Your task to perform on an android device: Clear all items from cart on ebay.com. Search for "razer naga" on ebay.com, select the first entry, add it to the cart, then select checkout. Image 0: 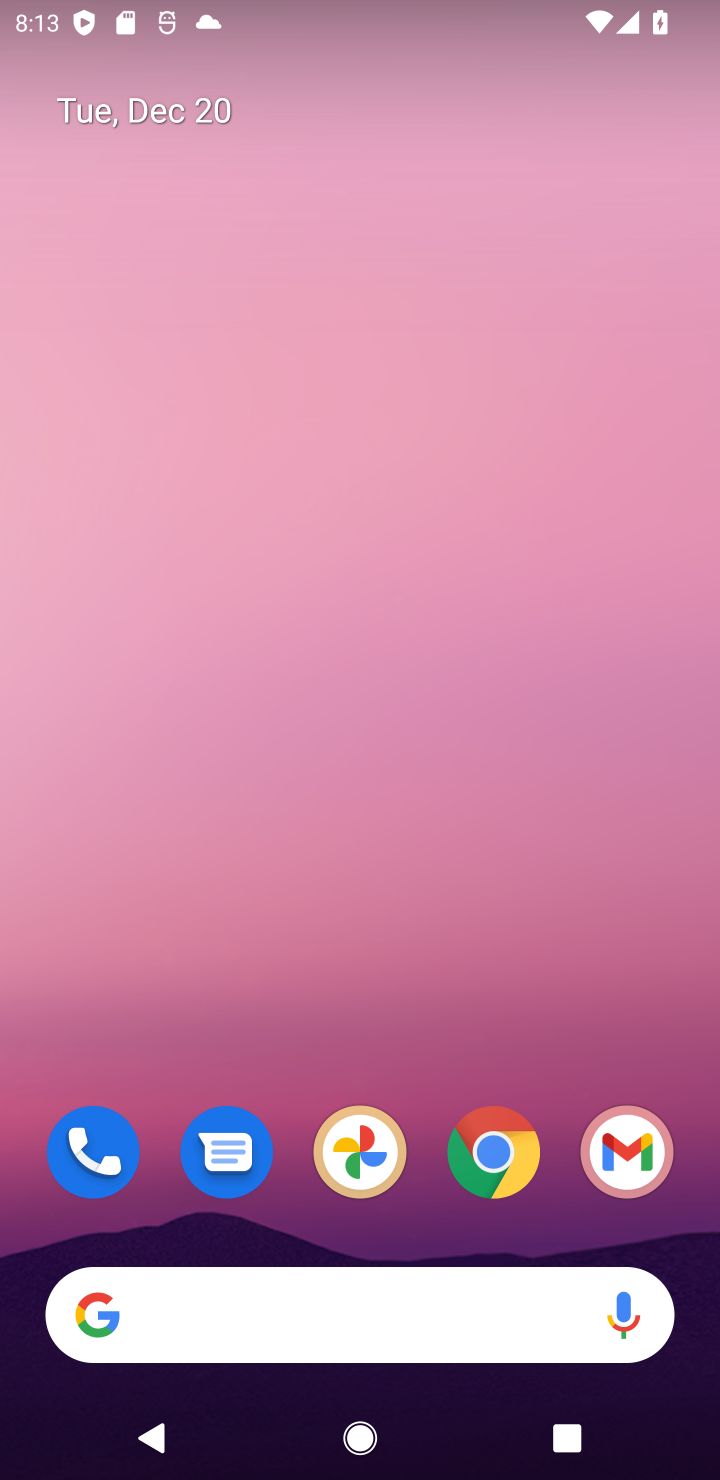
Step 0: click (481, 1149)
Your task to perform on an android device: Clear all items from cart on ebay.com. Search for "razer naga" on ebay.com, select the first entry, add it to the cart, then select checkout. Image 1: 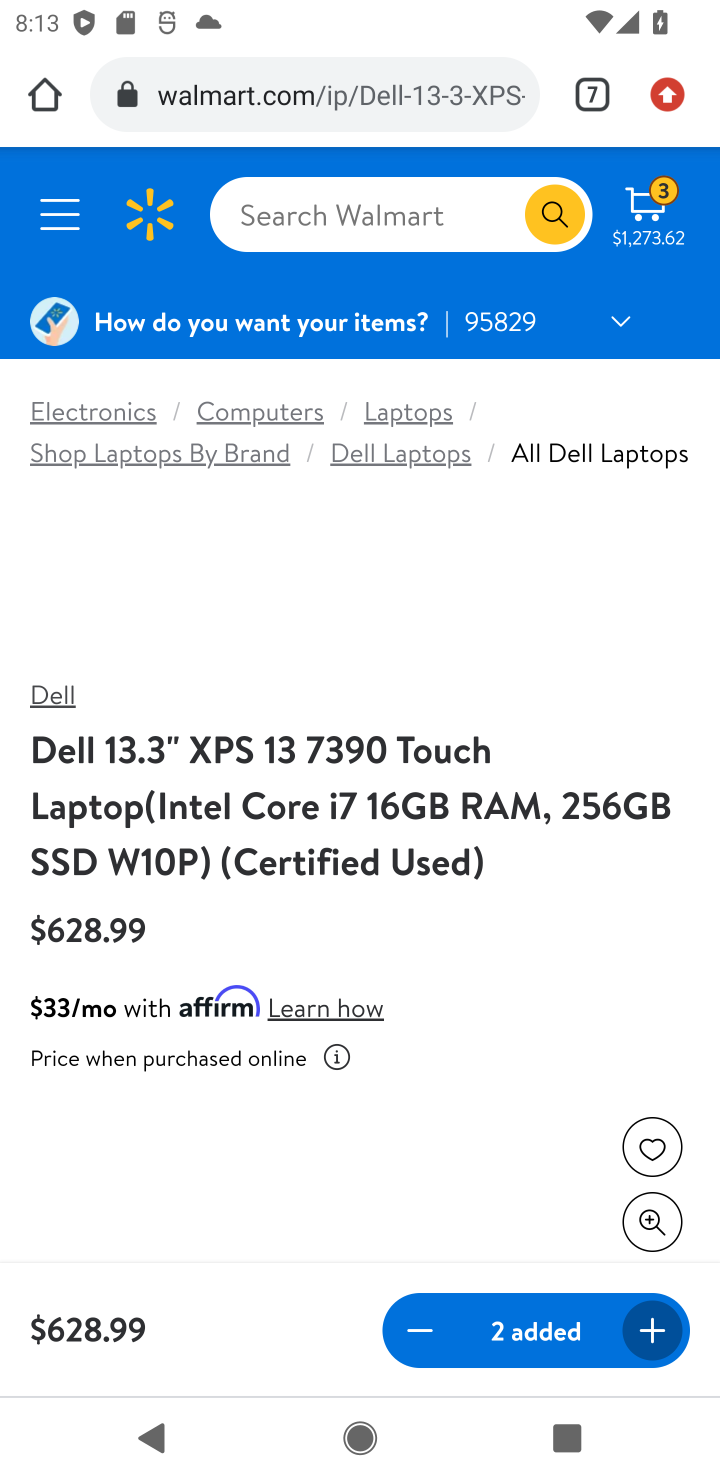
Step 1: click (592, 106)
Your task to perform on an android device: Clear all items from cart on ebay.com. Search for "razer naga" on ebay.com, select the first entry, add it to the cart, then select checkout. Image 2: 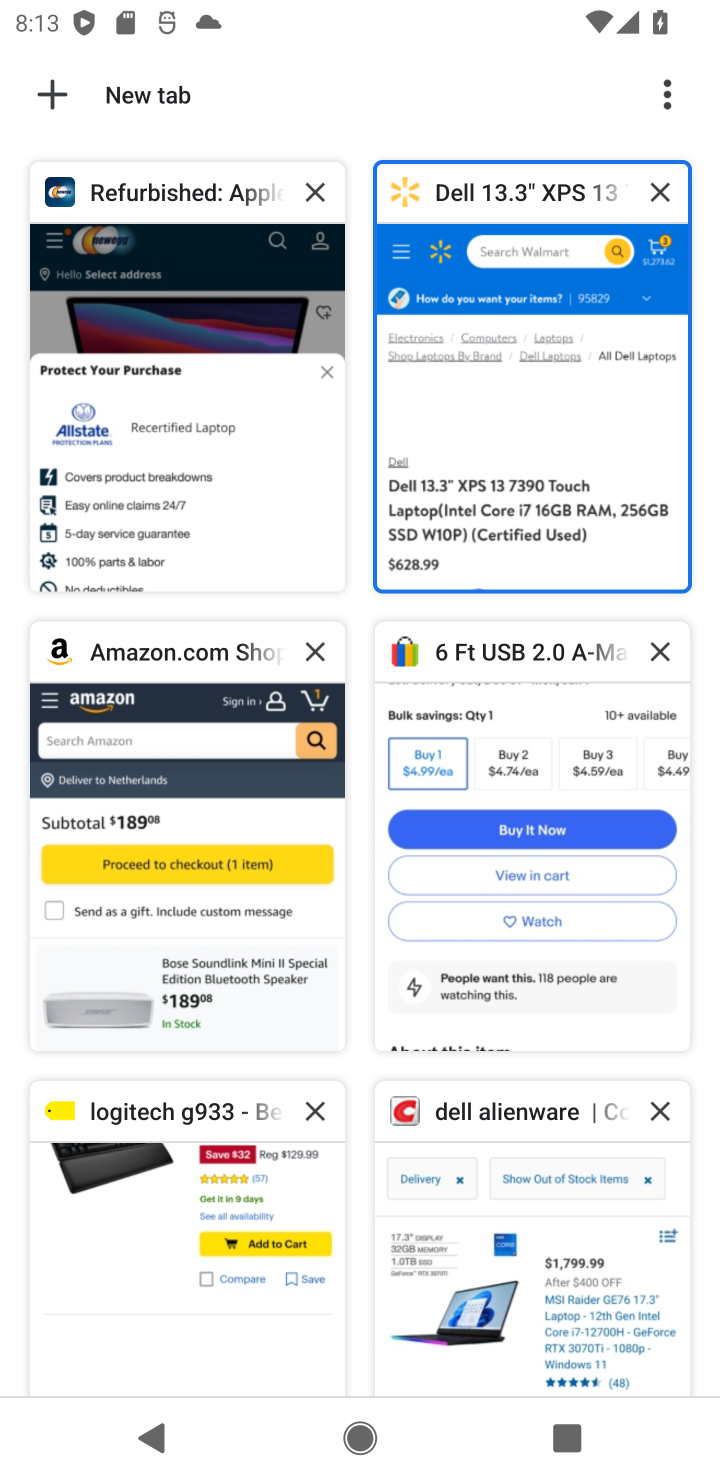
Step 2: click (476, 636)
Your task to perform on an android device: Clear all items from cart on ebay.com. Search for "razer naga" on ebay.com, select the first entry, add it to the cart, then select checkout. Image 3: 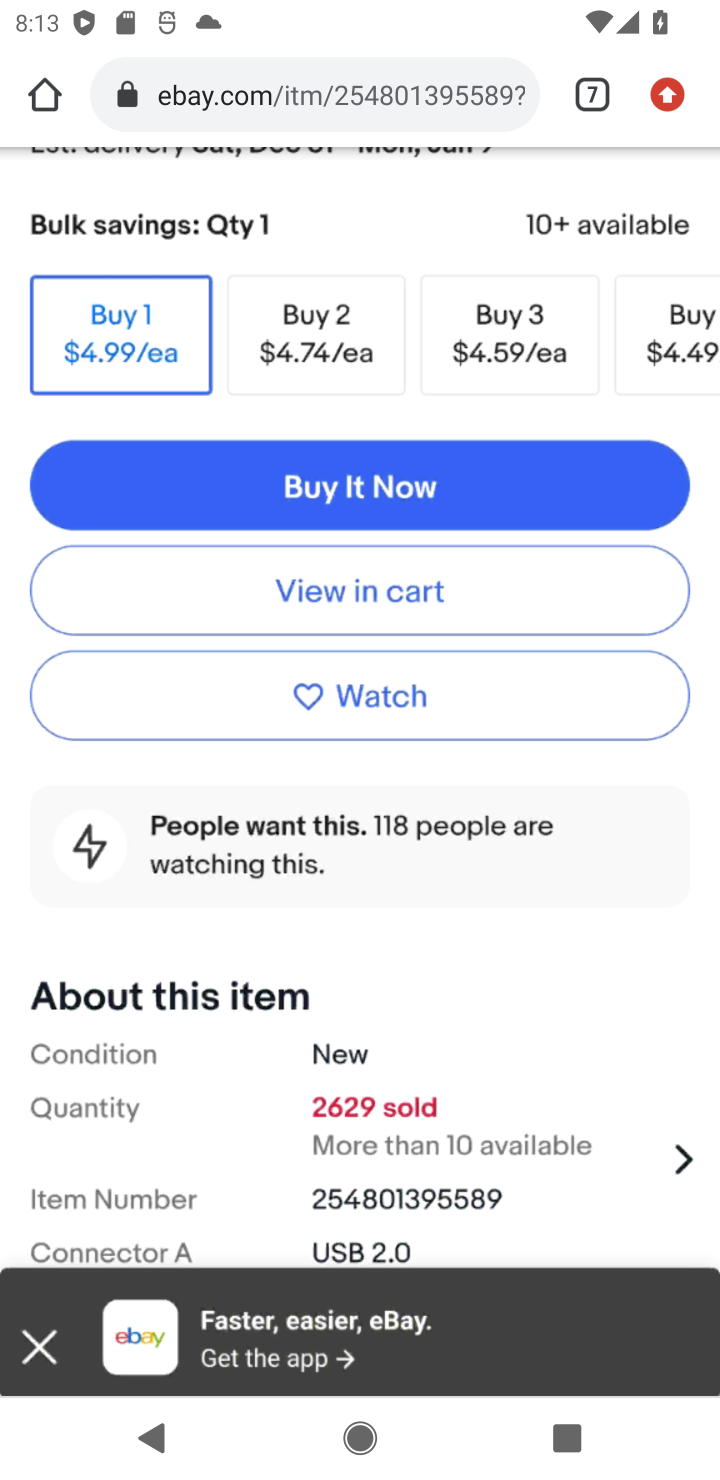
Step 3: click (513, 572)
Your task to perform on an android device: Clear all items from cart on ebay.com. Search for "razer naga" on ebay.com, select the first entry, add it to the cart, then select checkout. Image 4: 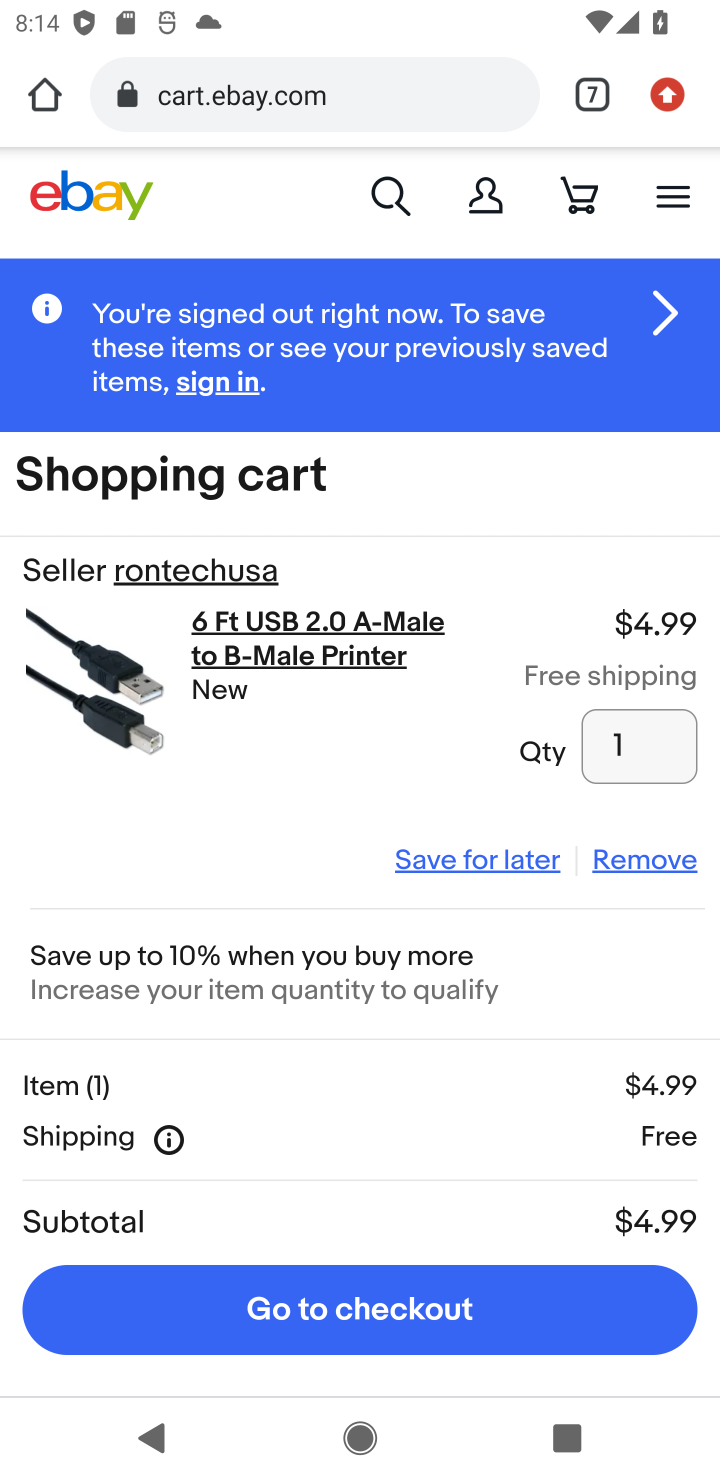
Step 4: click (615, 862)
Your task to perform on an android device: Clear all items from cart on ebay.com. Search for "razer naga" on ebay.com, select the first entry, add it to the cart, then select checkout. Image 5: 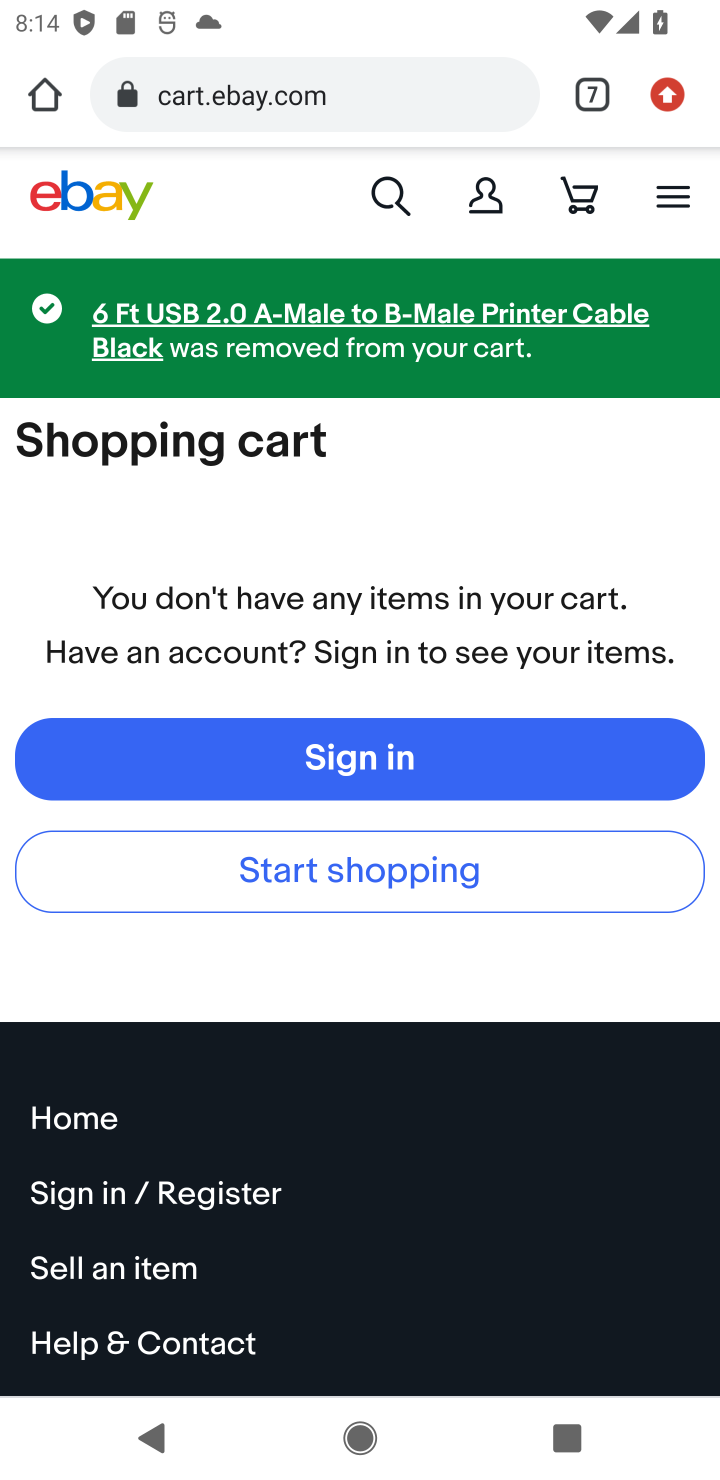
Step 5: click (393, 198)
Your task to perform on an android device: Clear all items from cart on ebay.com. Search for "razer naga" on ebay.com, select the first entry, add it to the cart, then select checkout. Image 6: 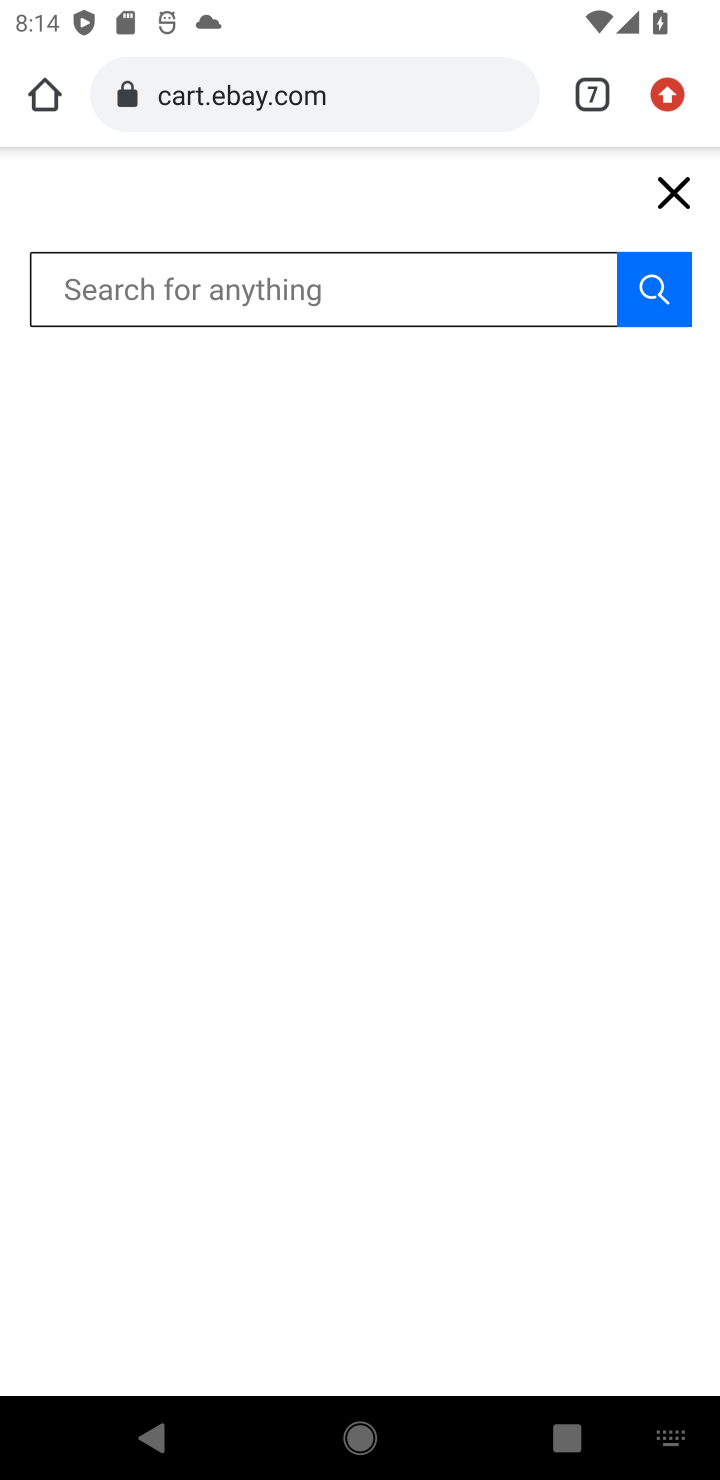
Step 6: type "razer naga"
Your task to perform on an android device: Clear all items from cart on ebay.com. Search for "razer naga" on ebay.com, select the first entry, add it to the cart, then select checkout. Image 7: 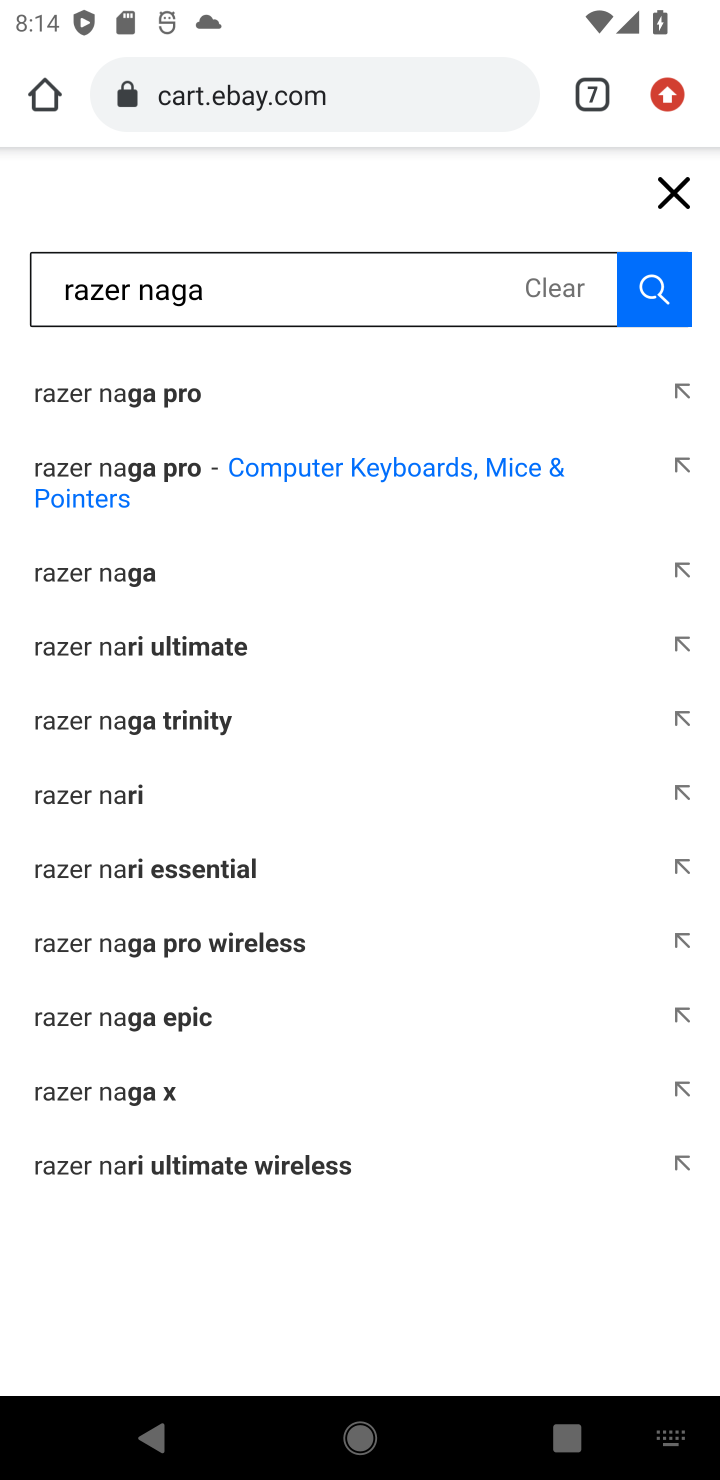
Step 7: click (137, 571)
Your task to perform on an android device: Clear all items from cart on ebay.com. Search for "razer naga" on ebay.com, select the first entry, add it to the cart, then select checkout. Image 8: 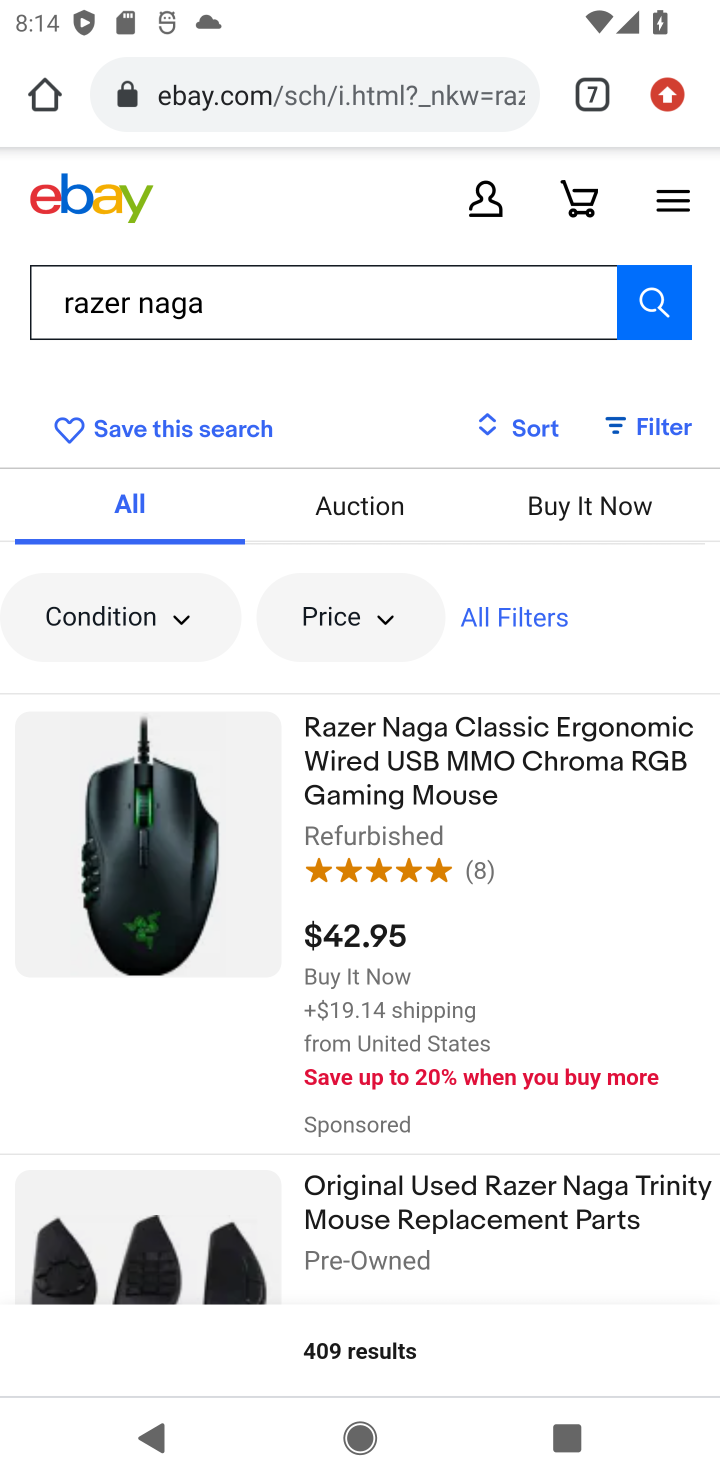
Step 8: click (450, 759)
Your task to perform on an android device: Clear all items from cart on ebay.com. Search for "razer naga" on ebay.com, select the first entry, add it to the cart, then select checkout. Image 9: 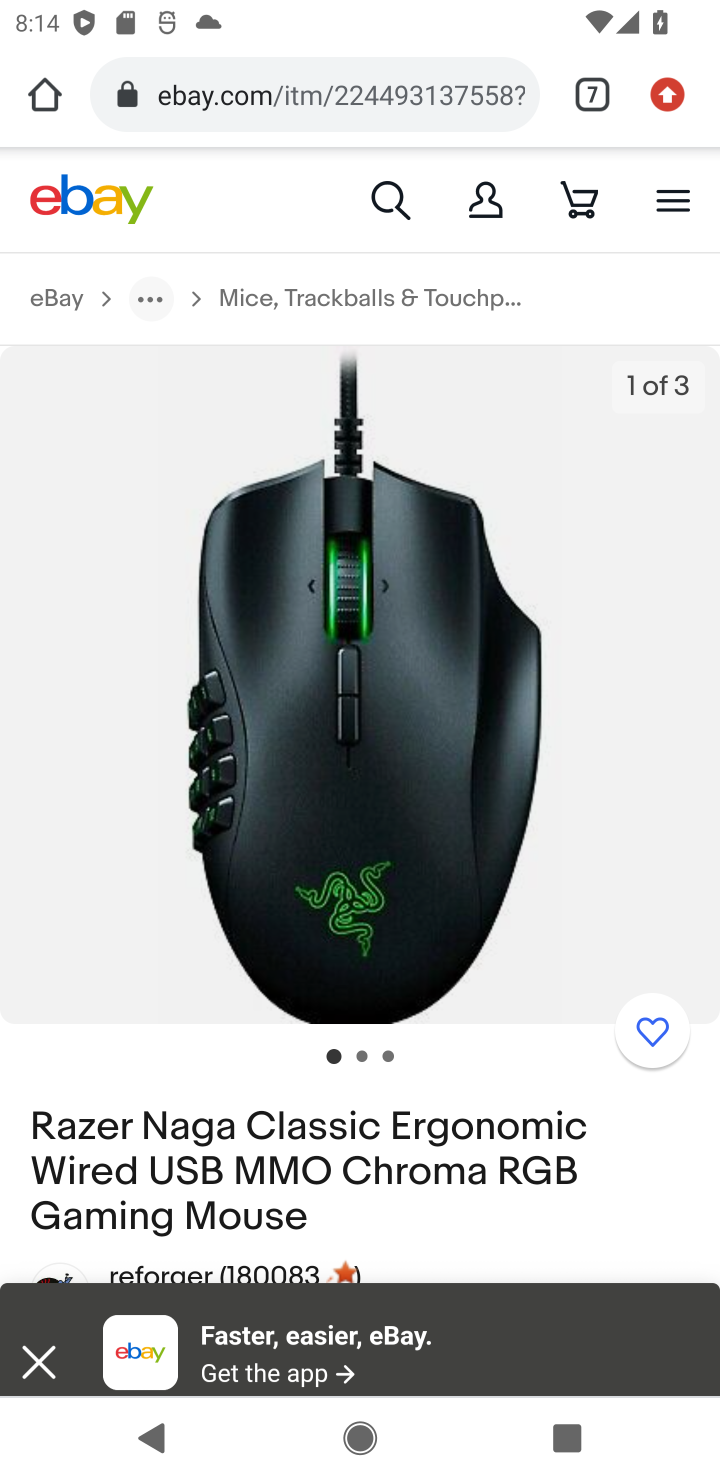
Step 9: drag from (502, 1241) to (580, 512)
Your task to perform on an android device: Clear all items from cart on ebay.com. Search for "razer naga" on ebay.com, select the first entry, add it to the cart, then select checkout. Image 10: 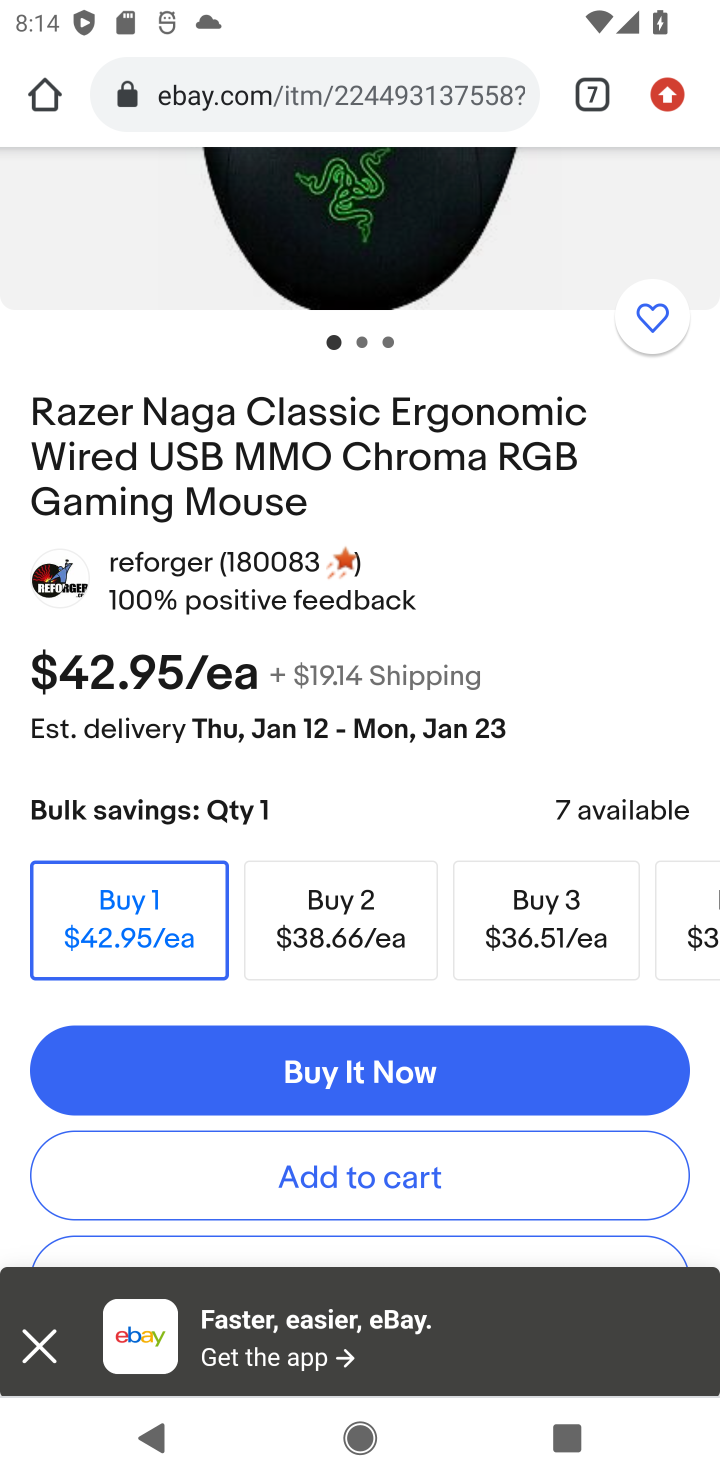
Step 10: click (43, 1344)
Your task to perform on an android device: Clear all items from cart on ebay.com. Search for "razer naga" on ebay.com, select the first entry, add it to the cart, then select checkout. Image 11: 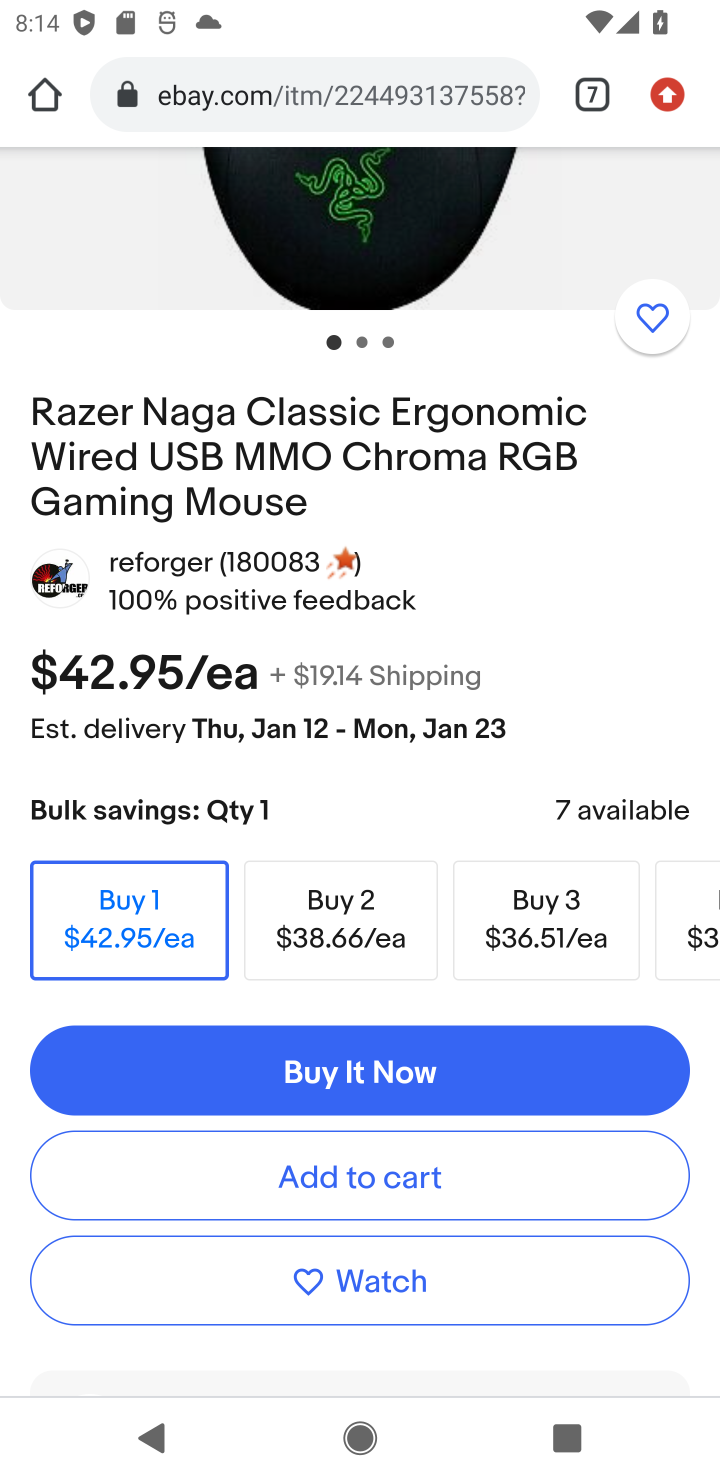
Step 11: click (369, 1166)
Your task to perform on an android device: Clear all items from cart on ebay.com. Search for "razer naga" on ebay.com, select the first entry, add it to the cart, then select checkout. Image 12: 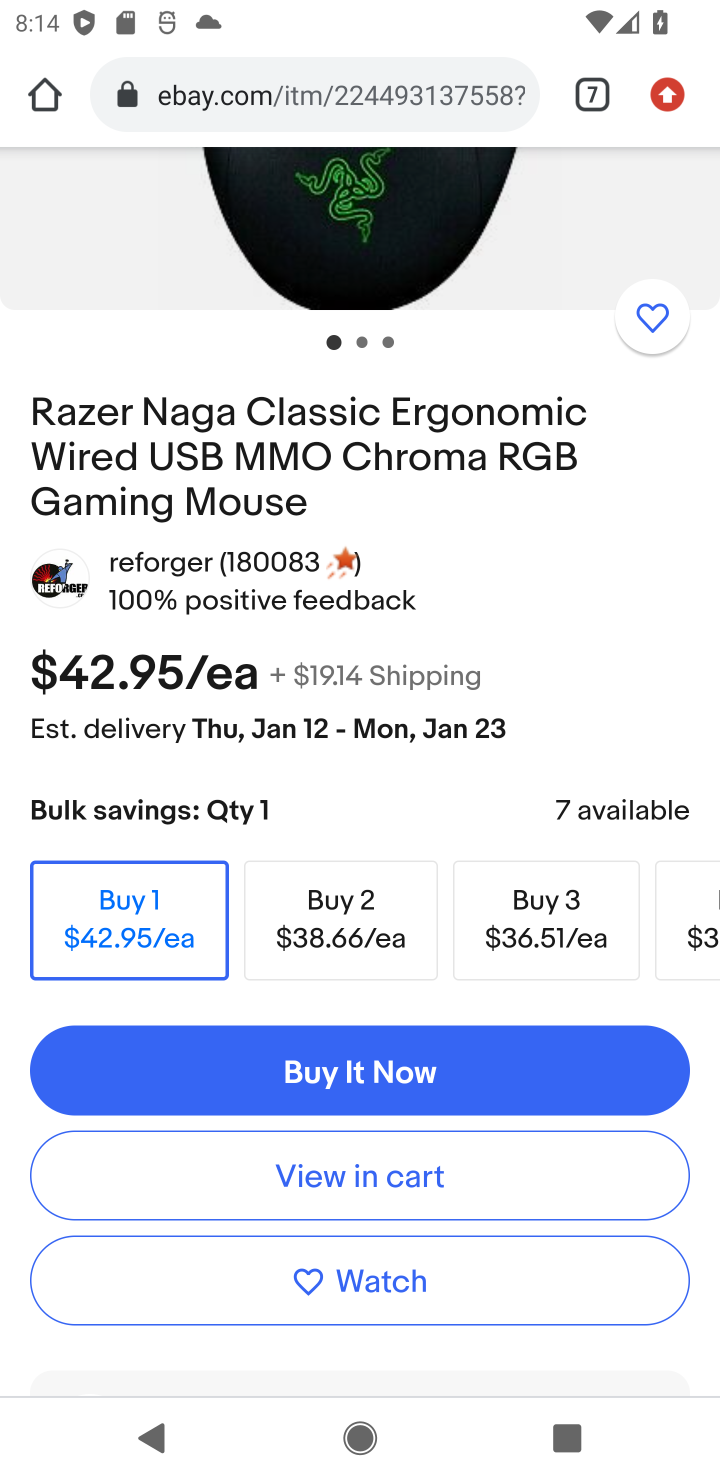
Step 12: task complete